Your task to perform on an android device: Open Chrome and go to the settings page Image 0: 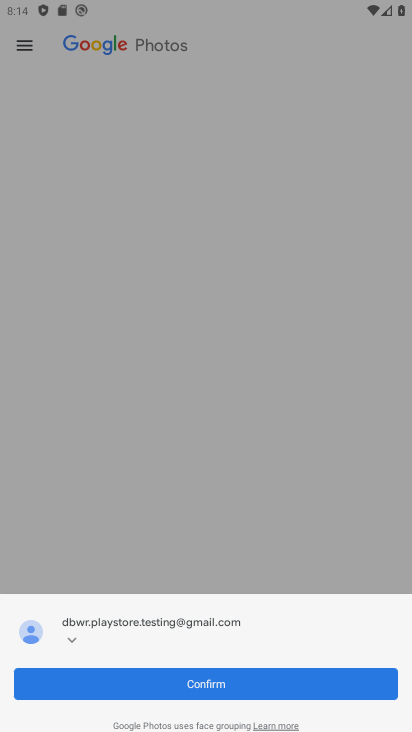
Step 0: press home button
Your task to perform on an android device: Open Chrome and go to the settings page Image 1: 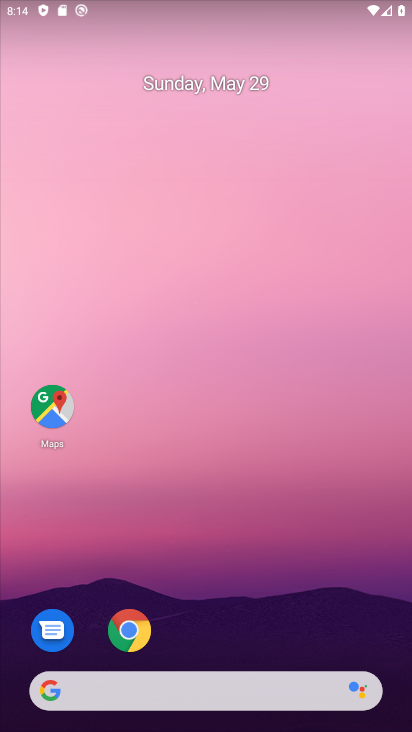
Step 1: click (132, 623)
Your task to perform on an android device: Open Chrome and go to the settings page Image 2: 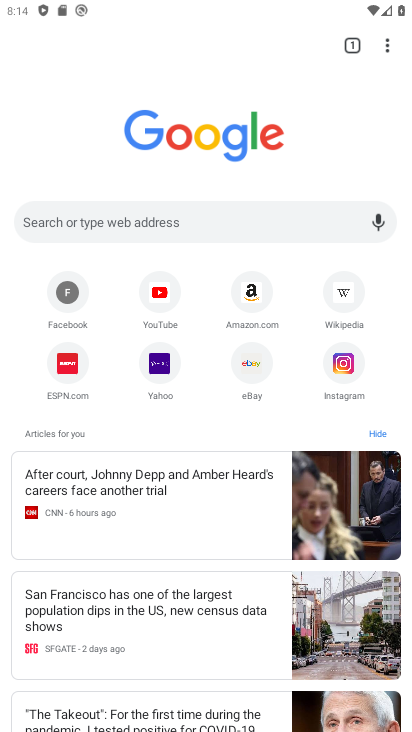
Step 2: click (388, 44)
Your task to perform on an android device: Open Chrome and go to the settings page Image 3: 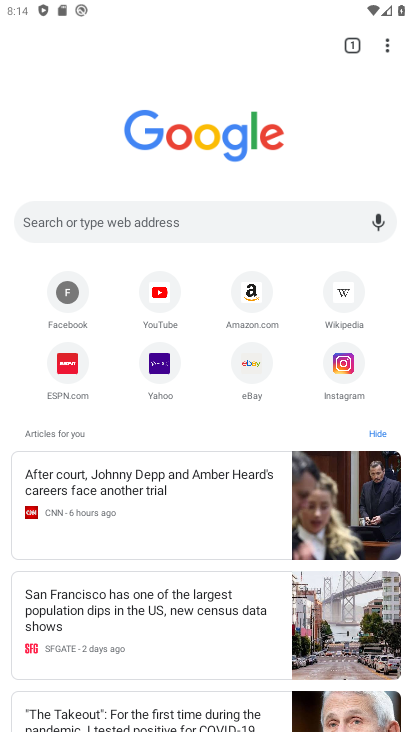
Step 3: click (386, 42)
Your task to perform on an android device: Open Chrome and go to the settings page Image 4: 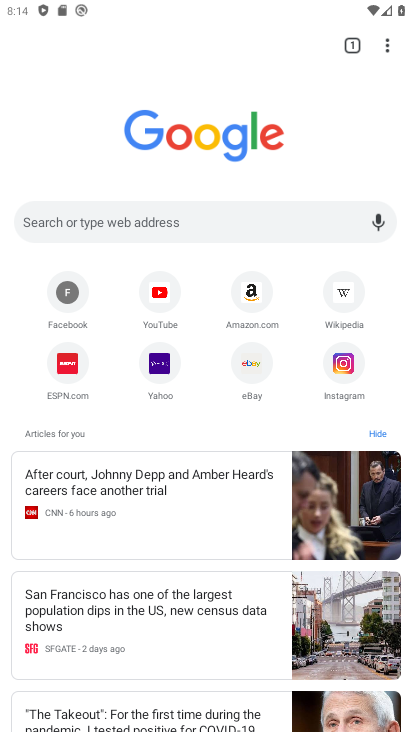
Step 4: click (383, 45)
Your task to perform on an android device: Open Chrome and go to the settings page Image 5: 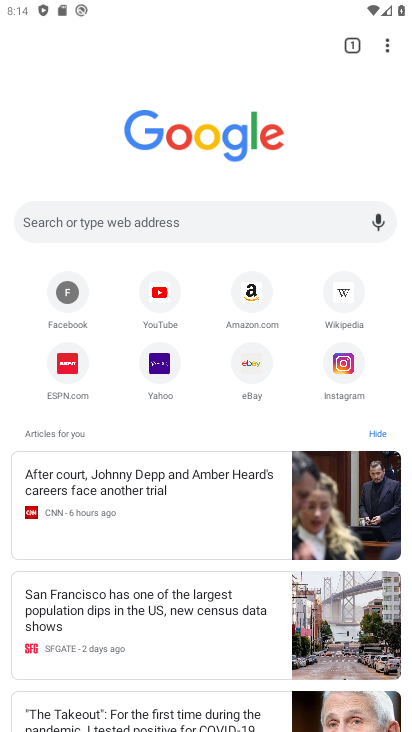
Step 5: click (384, 45)
Your task to perform on an android device: Open Chrome and go to the settings page Image 6: 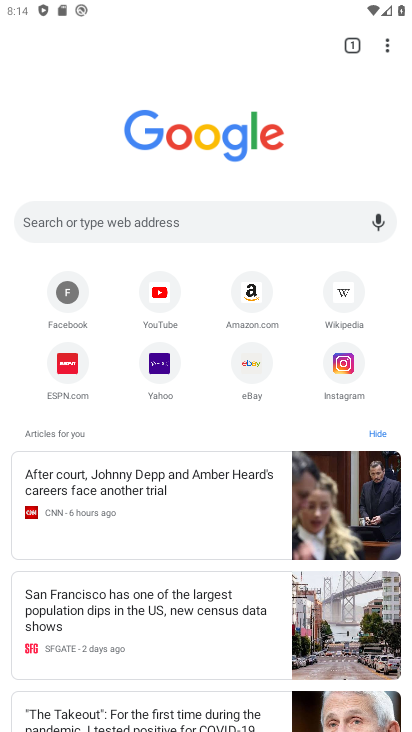
Step 6: click (389, 44)
Your task to perform on an android device: Open Chrome and go to the settings page Image 7: 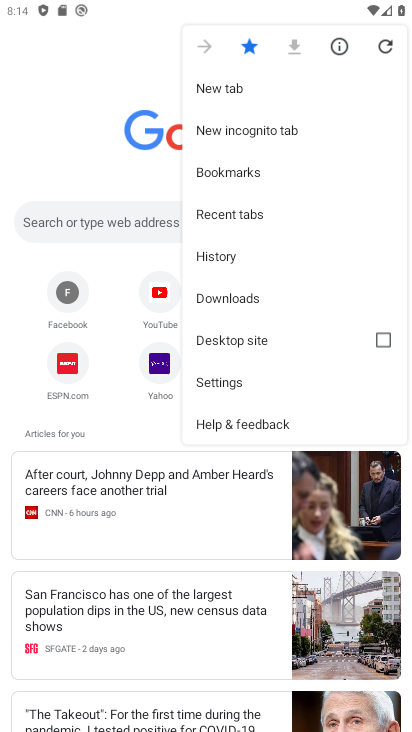
Step 7: click (222, 379)
Your task to perform on an android device: Open Chrome and go to the settings page Image 8: 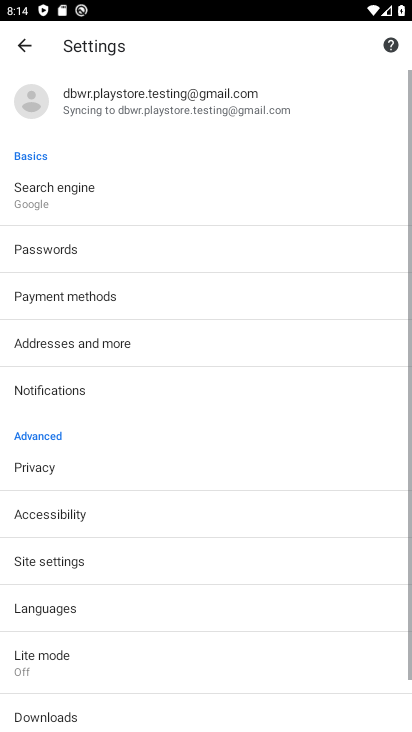
Step 8: task complete